Your task to perform on an android device: Turn off the flashlight Image 0: 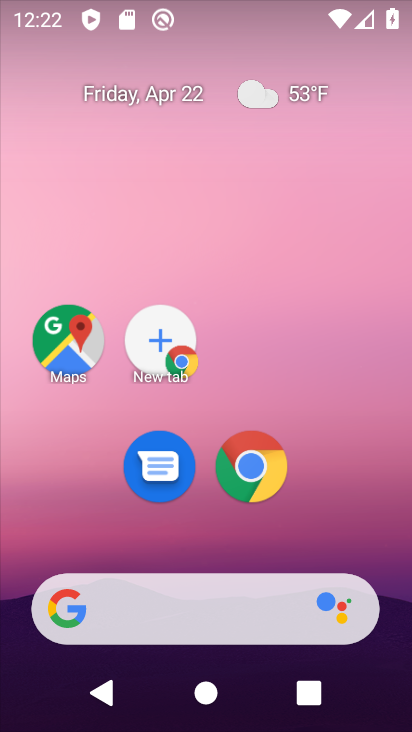
Step 0: drag from (390, 553) to (271, 1)
Your task to perform on an android device: Turn off the flashlight Image 1: 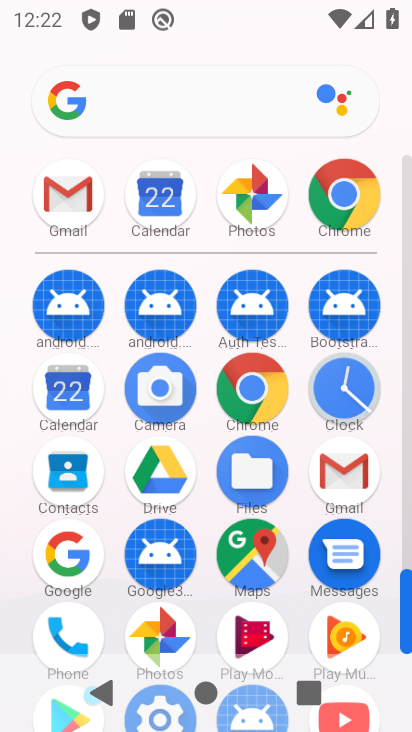
Step 1: drag from (12, 490) to (19, 254)
Your task to perform on an android device: Turn off the flashlight Image 2: 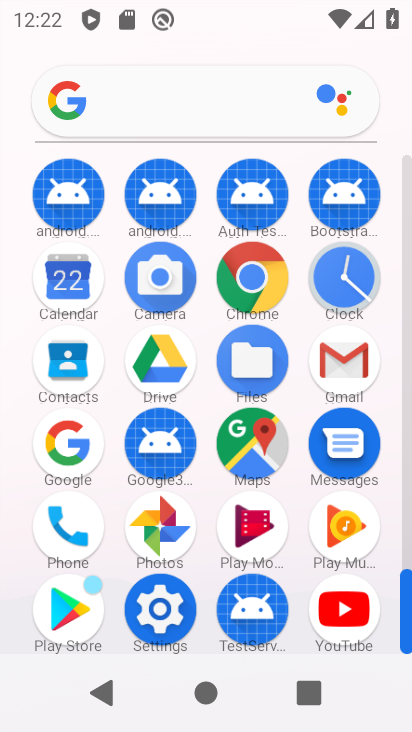
Step 2: click (158, 610)
Your task to perform on an android device: Turn off the flashlight Image 3: 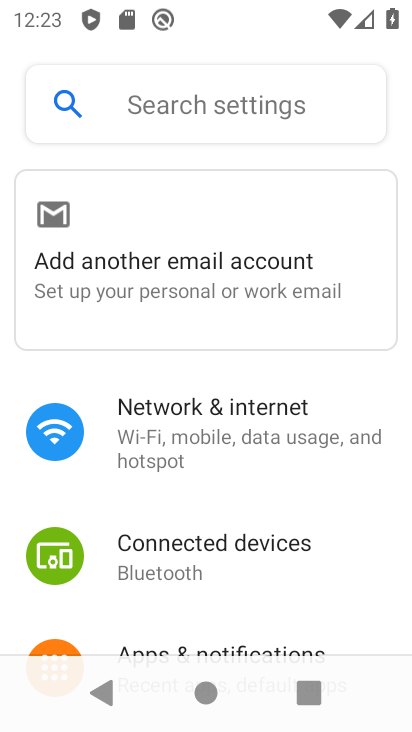
Step 3: click (220, 425)
Your task to perform on an android device: Turn off the flashlight Image 4: 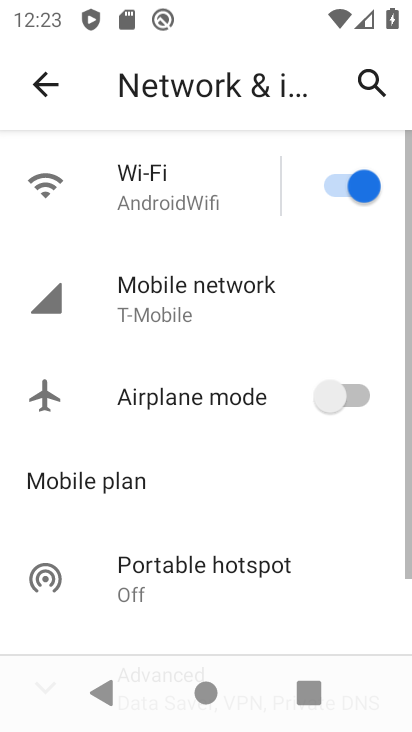
Step 4: drag from (248, 523) to (220, 158)
Your task to perform on an android device: Turn off the flashlight Image 5: 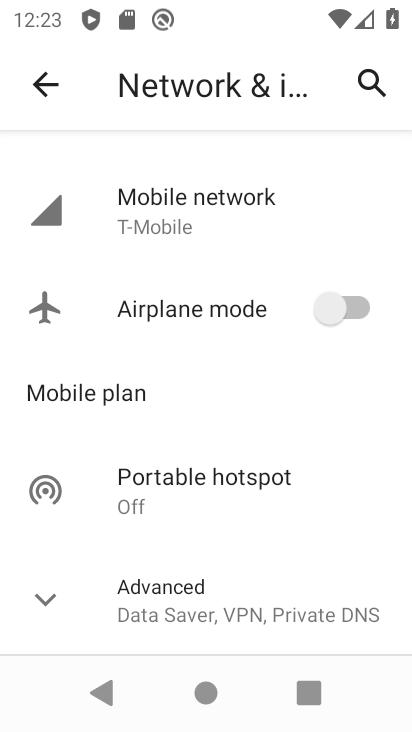
Step 5: click (60, 581)
Your task to perform on an android device: Turn off the flashlight Image 6: 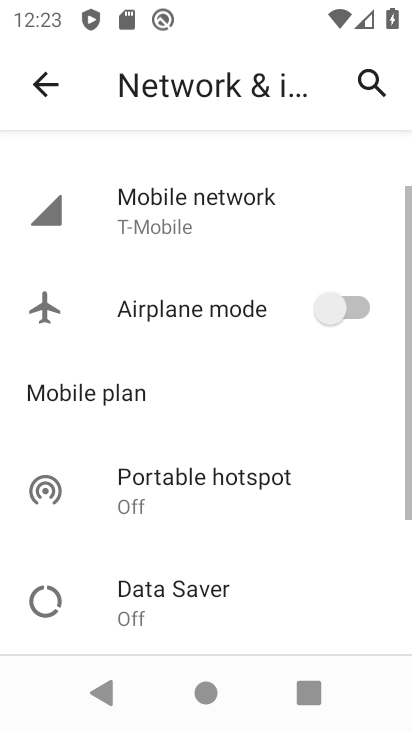
Step 6: drag from (157, 588) to (219, 175)
Your task to perform on an android device: Turn off the flashlight Image 7: 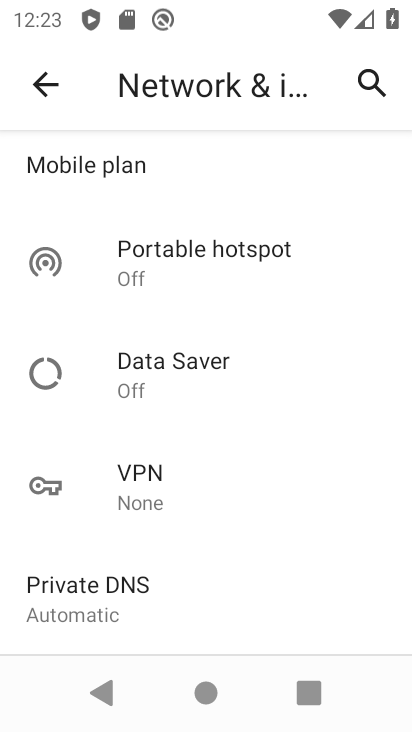
Step 7: drag from (238, 154) to (163, 545)
Your task to perform on an android device: Turn off the flashlight Image 8: 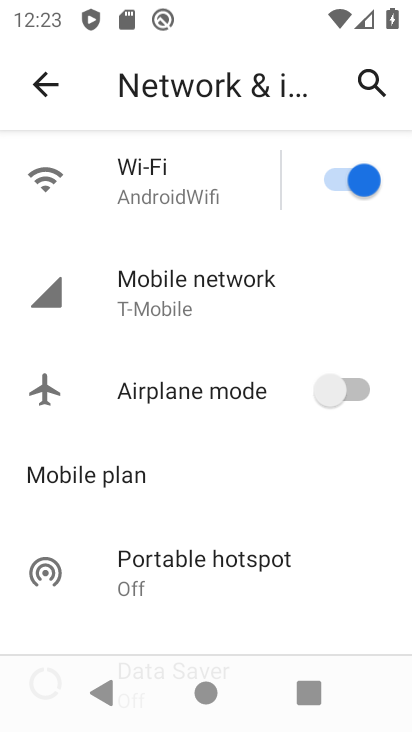
Step 8: click (63, 74)
Your task to perform on an android device: Turn off the flashlight Image 9: 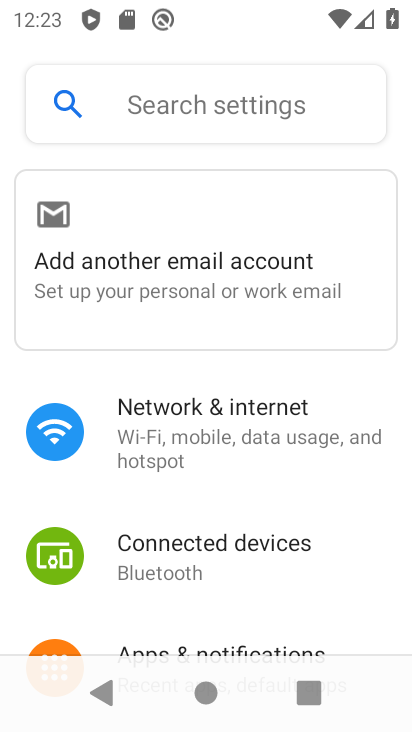
Step 9: drag from (296, 504) to (301, 186)
Your task to perform on an android device: Turn off the flashlight Image 10: 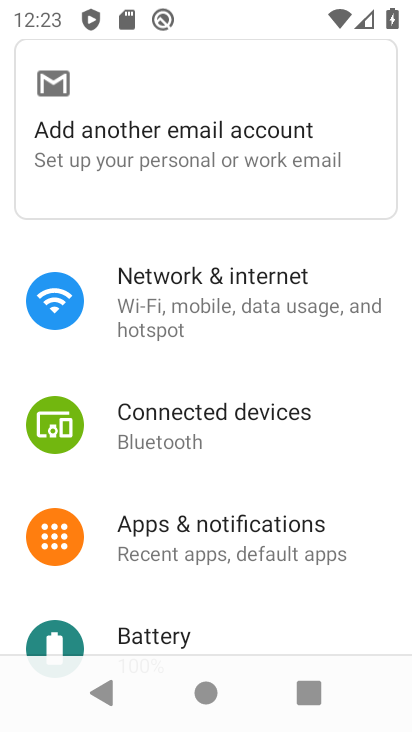
Step 10: drag from (302, 501) to (316, 155)
Your task to perform on an android device: Turn off the flashlight Image 11: 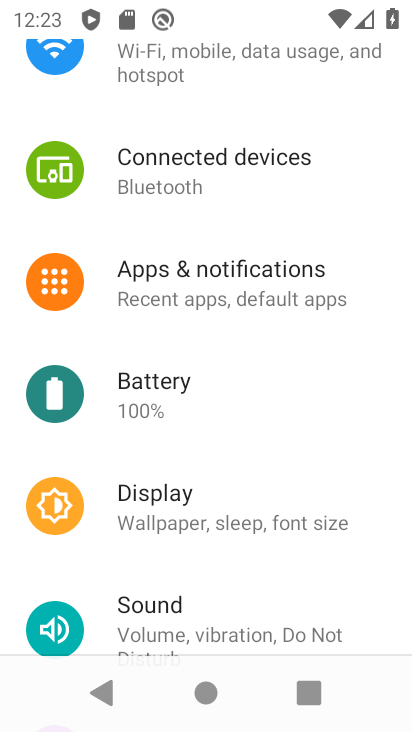
Step 11: drag from (286, 420) to (265, 113)
Your task to perform on an android device: Turn off the flashlight Image 12: 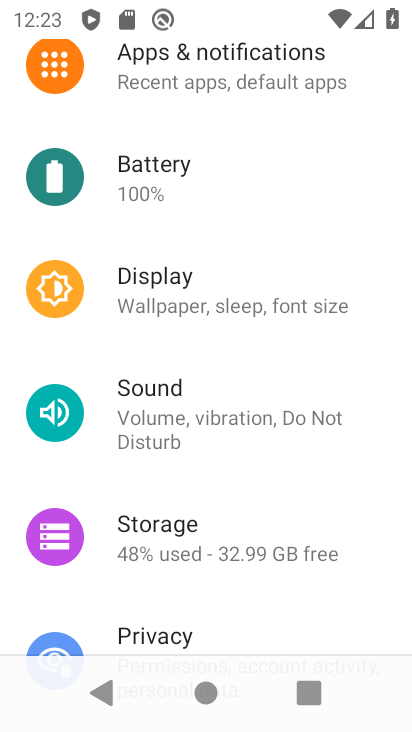
Step 12: drag from (220, 522) to (249, 146)
Your task to perform on an android device: Turn off the flashlight Image 13: 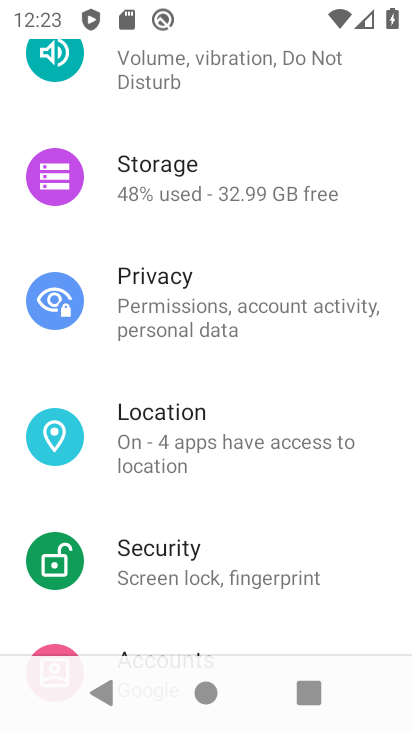
Step 13: drag from (300, 487) to (283, 114)
Your task to perform on an android device: Turn off the flashlight Image 14: 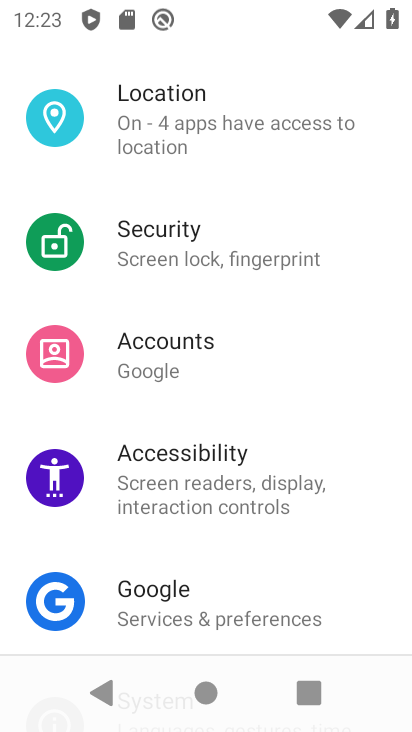
Step 14: drag from (283, 114) to (280, 515)
Your task to perform on an android device: Turn off the flashlight Image 15: 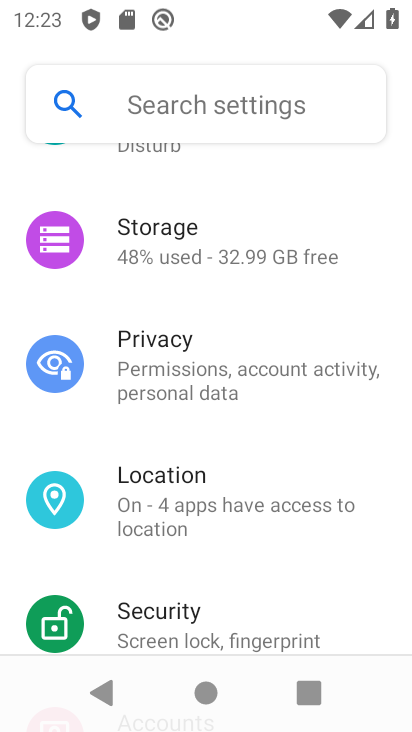
Step 15: drag from (286, 201) to (287, 564)
Your task to perform on an android device: Turn off the flashlight Image 16: 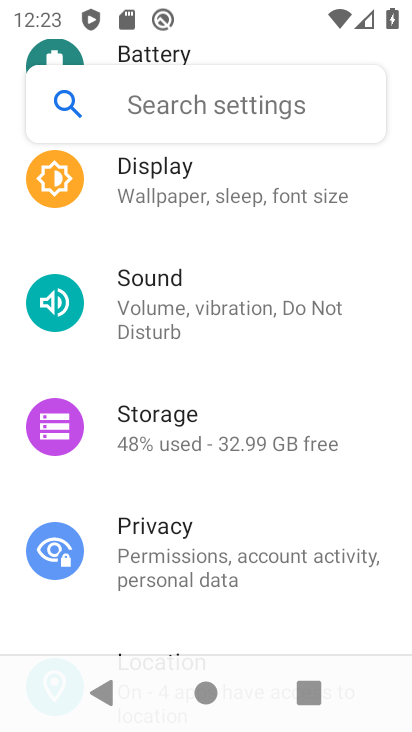
Step 16: drag from (292, 232) to (308, 576)
Your task to perform on an android device: Turn off the flashlight Image 17: 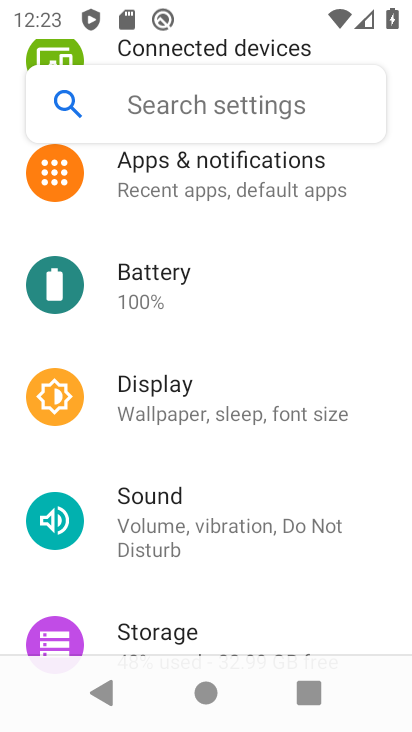
Step 17: drag from (294, 280) to (290, 558)
Your task to perform on an android device: Turn off the flashlight Image 18: 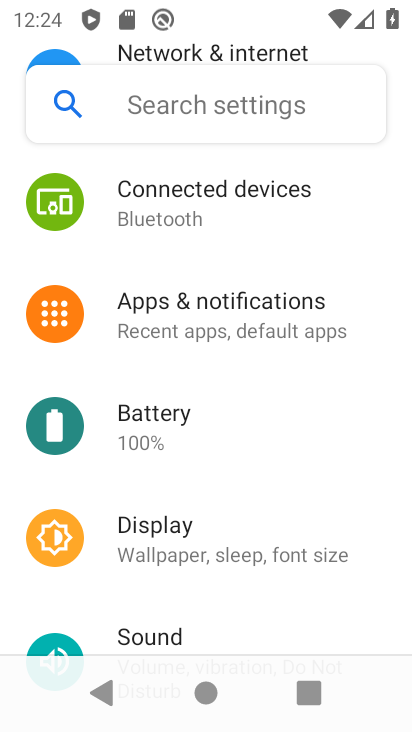
Step 18: drag from (272, 204) to (275, 602)
Your task to perform on an android device: Turn off the flashlight Image 19: 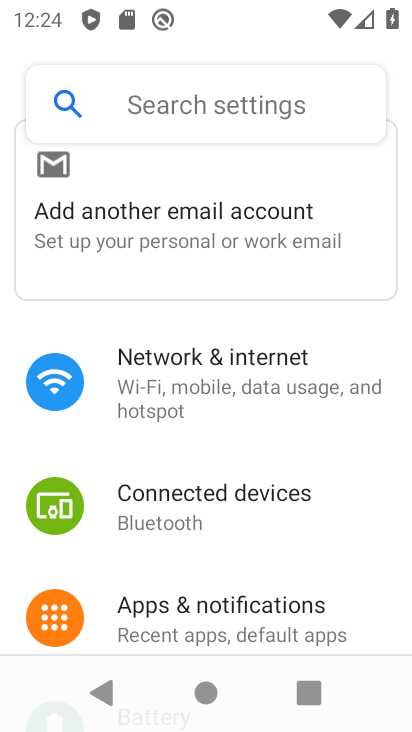
Step 19: drag from (276, 277) to (279, 456)
Your task to perform on an android device: Turn off the flashlight Image 20: 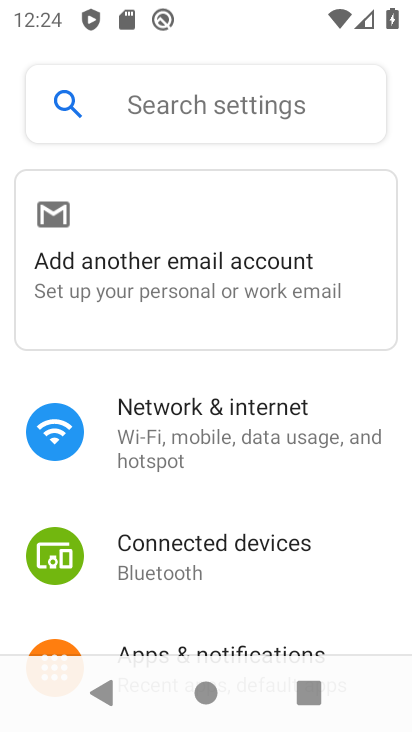
Step 20: click (285, 427)
Your task to perform on an android device: Turn off the flashlight Image 21: 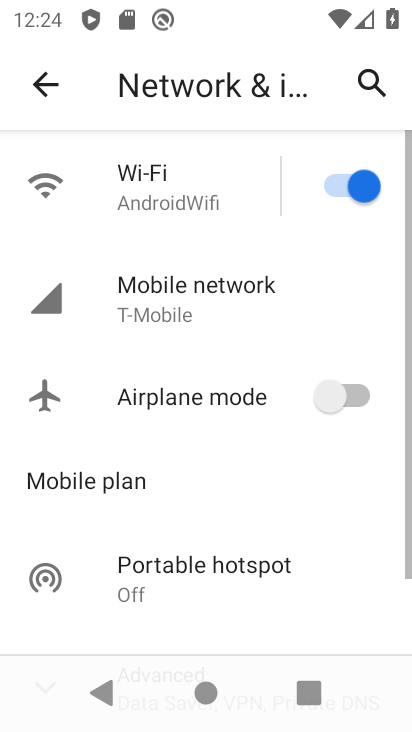
Step 21: drag from (245, 487) to (244, 105)
Your task to perform on an android device: Turn off the flashlight Image 22: 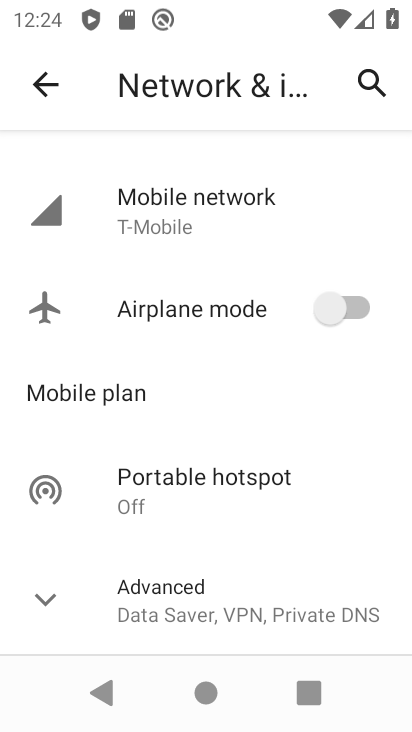
Step 22: click (62, 593)
Your task to perform on an android device: Turn off the flashlight Image 23: 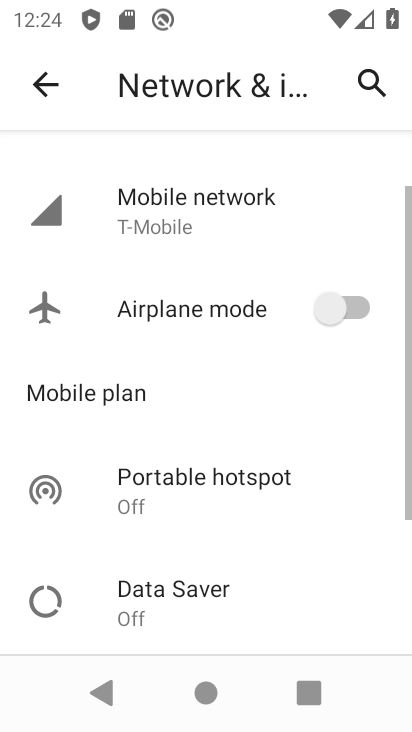
Step 23: task complete